Your task to perform on an android device: Open eBay Image 0: 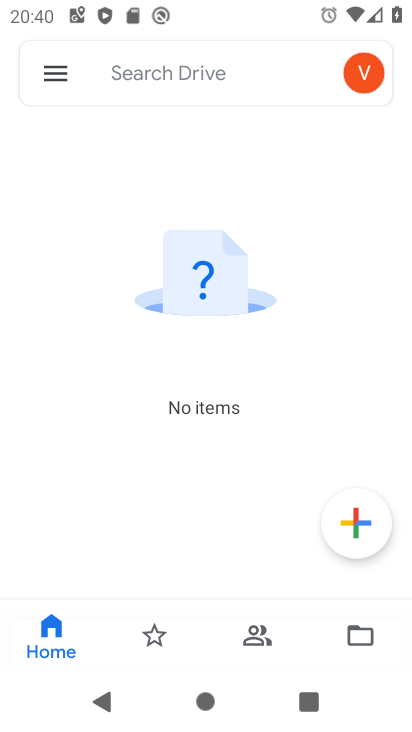
Step 0: press home button
Your task to perform on an android device: Open eBay Image 1: 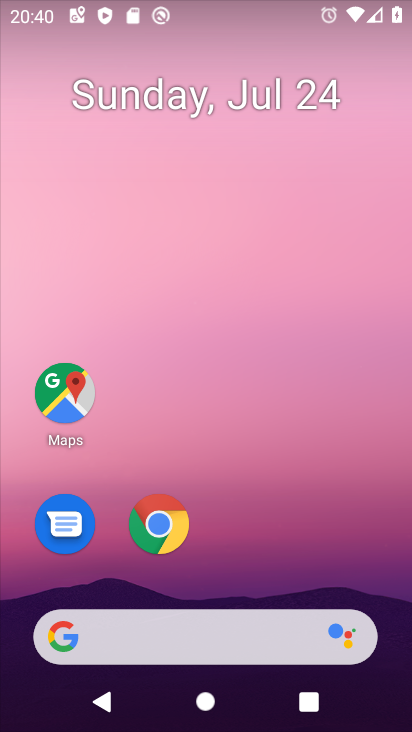
Step 1: click (219, 652)
Your task to perform on an android device: Open eBay Image 2: 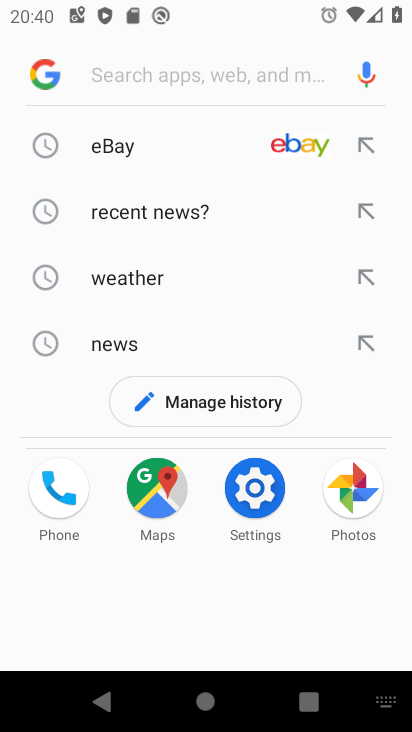
Step 2: click (122, 146)
Your task to perform on an android device: Open eBay Image 3: 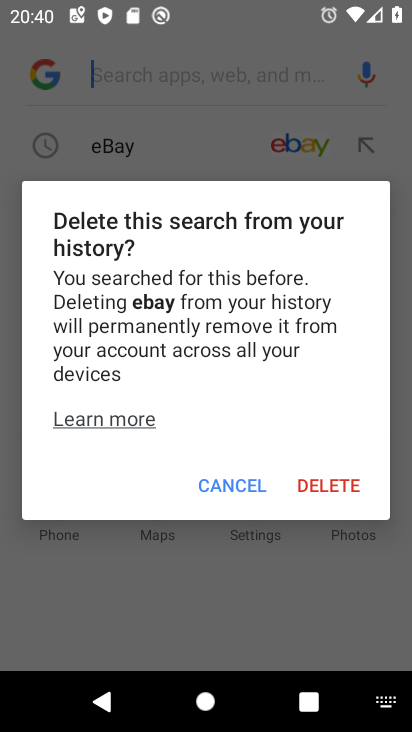
Step 3: click (239, 479)
Your task to perform on an android device: Open eBay Image 4: 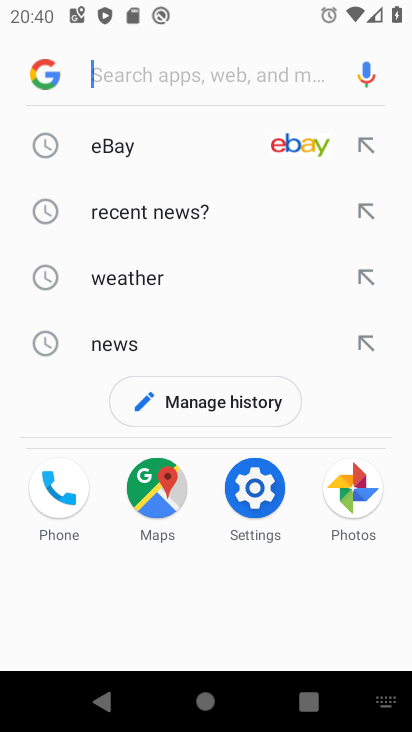
Step 4: click (120, 141)
Your task to perform on an android device: Open eBay Image 5: 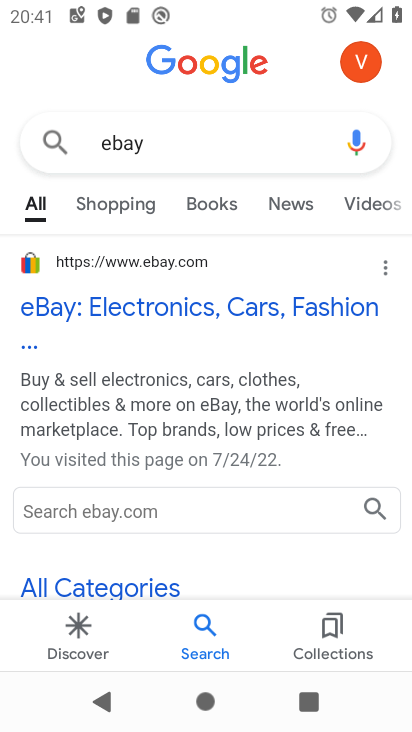
Step 5: click (60, 305)
Your task to perform on an android device: Open eBay Image 6: 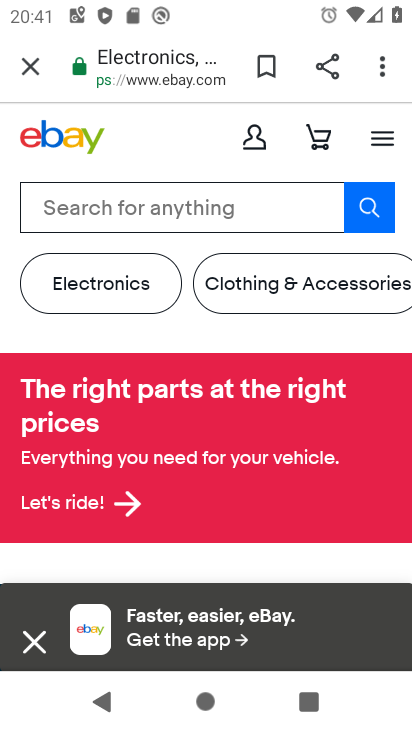
Step 6: task complete